Your task to perform on an android device: visit the assistant section in the google photos Image 0: 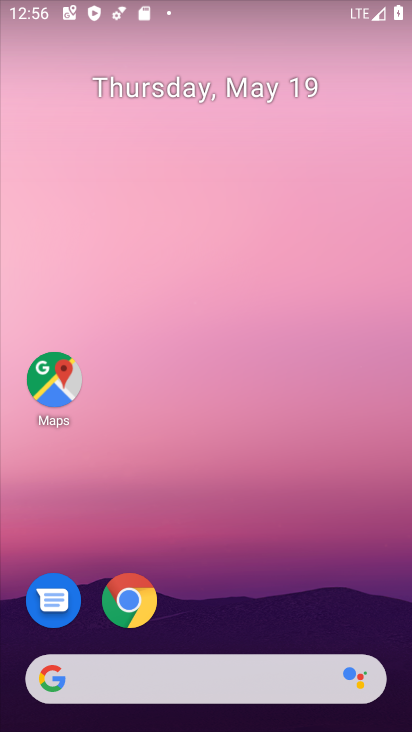
Step 0: drag from (277, 511) to (155, 46)
Your task to perform on an android device: visit the assistant section in the google photos Image 1: 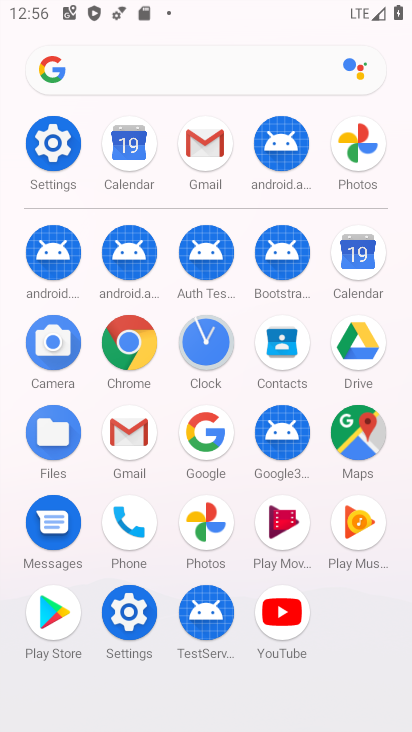
Step 1: click (361, 152)
Your task to perform on an android device: visit the assistant section in the google photos Image 2: 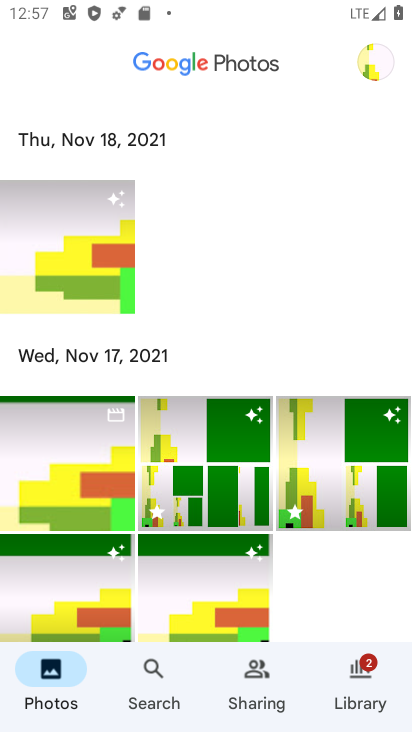
Step 2: click (150, 667)
Your task to perform on an android device: visit the assistant section in the google photos Image 3: 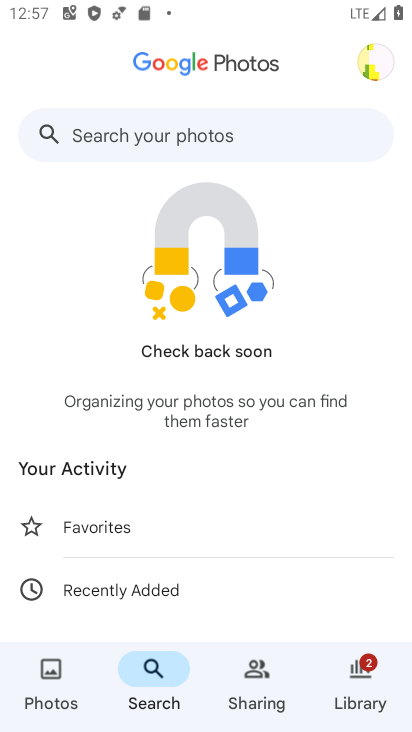
Step 3: click (164, 125)
Your task to perform on an android device: visit the assistant section in the google photos Image 4: 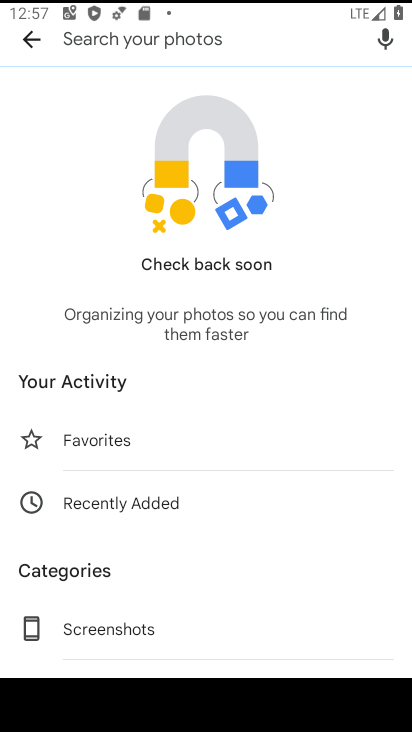
Step 4: type "assistant"
Your task to perform on an android device: visit the assistant section in the google photos Image 5: 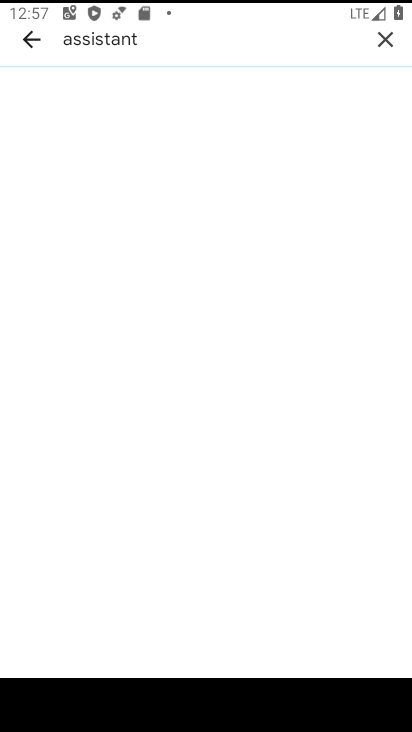
Step 5: click (159, 37)
Your task to perform on an android device: visit the assistant section in the google photos Image 6: 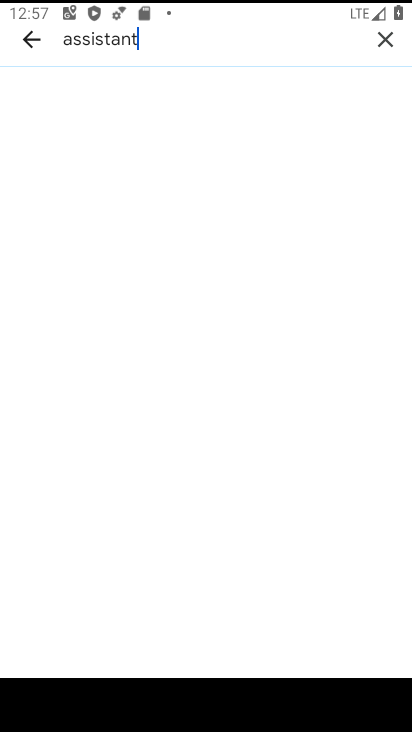
Step 6: task complete